Your task to perform on an android device: Clear the shopping cart on ebay.com. Image 0: 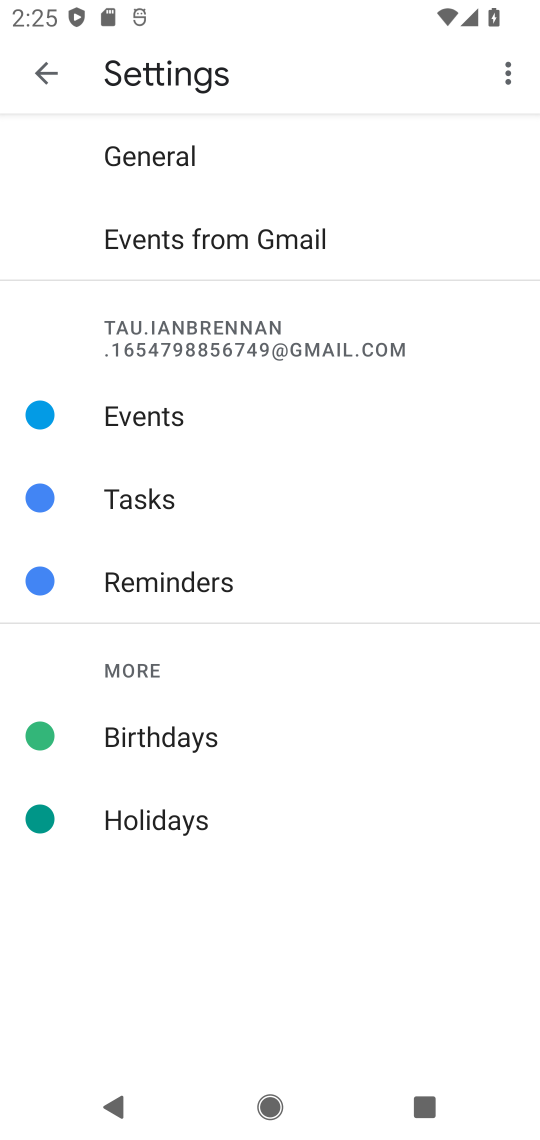
Step 0: press home button
Your task to perform on an android device: Clear the shopping cart on ebay.com. Image 1: 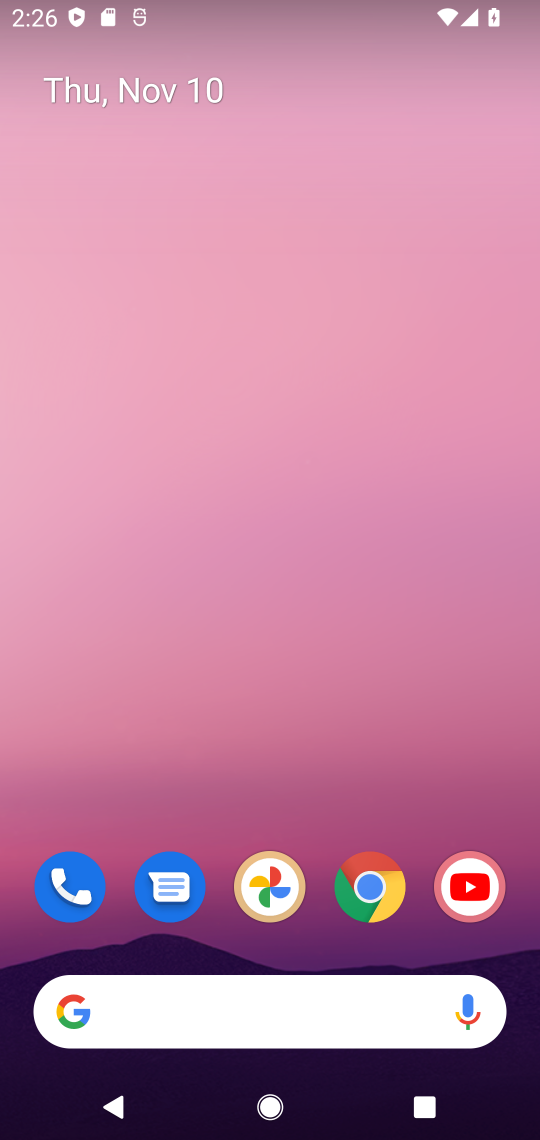
Step 1: drag from (336, 964) to (312, 65)
Your task to perform on an android device: Clear the shopping cart on ebay.com. Image 2: 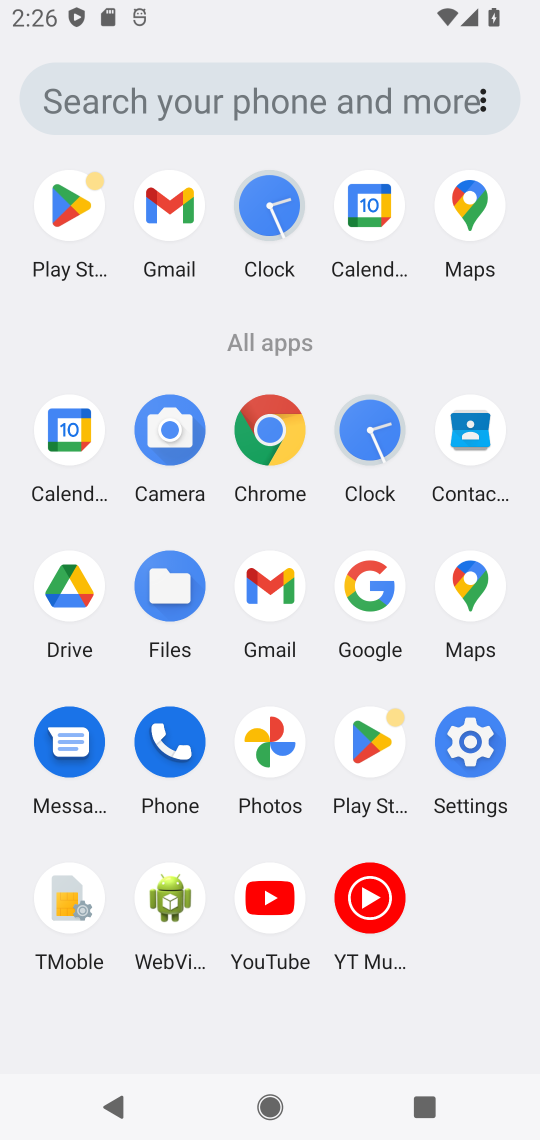
Step 2: click (266, 434)
Your task to perform on an android device: Clear the shopping cart on ebay.com. Image 3: 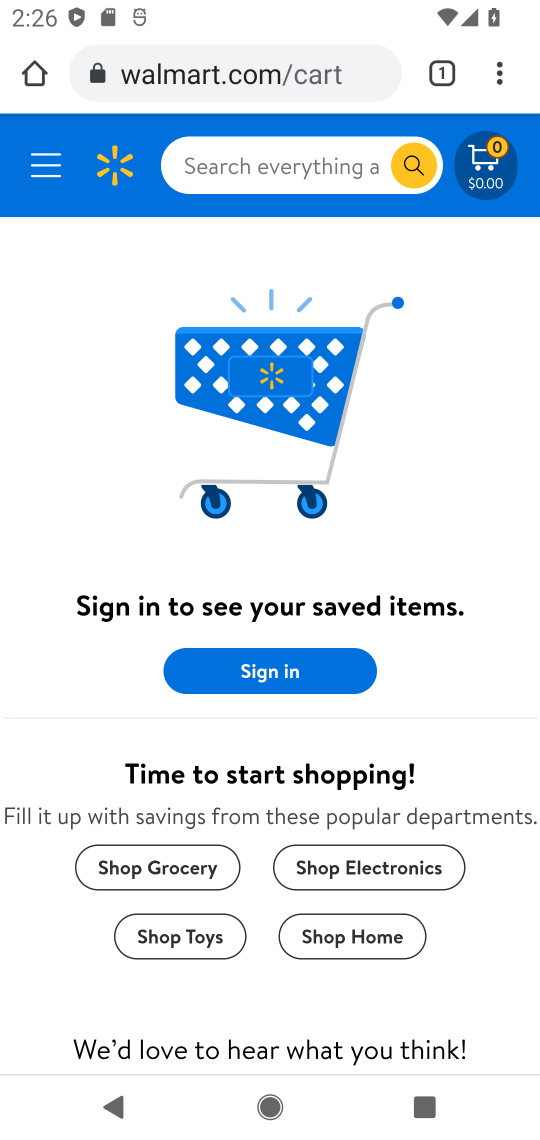
Step 3: click (264, 76)
Your task to perform on an android device: Clear the shopping cart on ebay.com. Image 4: 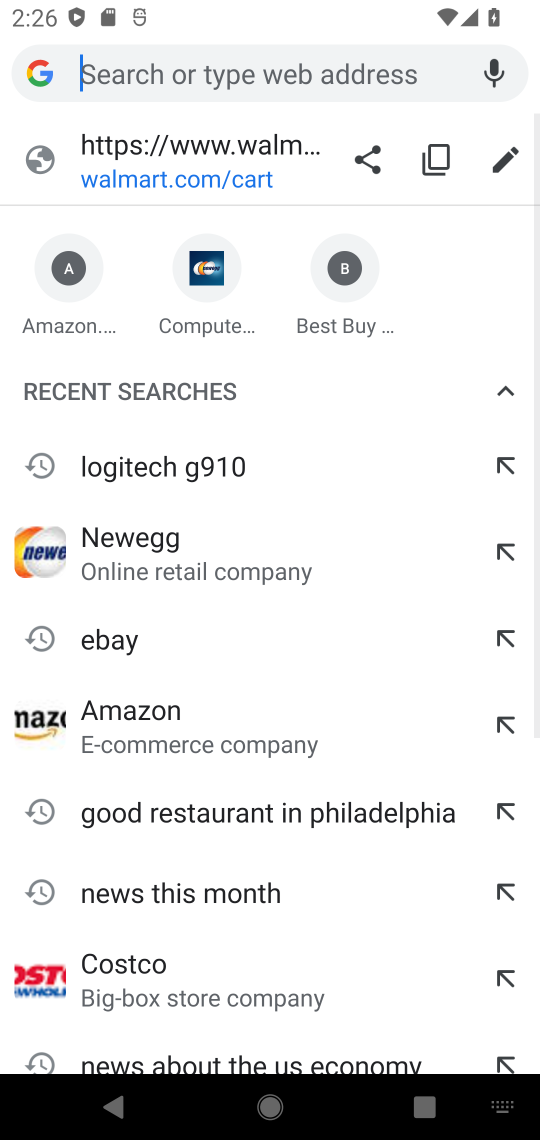
Step 4: type "ebay.com"
Your task to perform on an android device: Clear the shopping cart on ebay.com. Image 5: 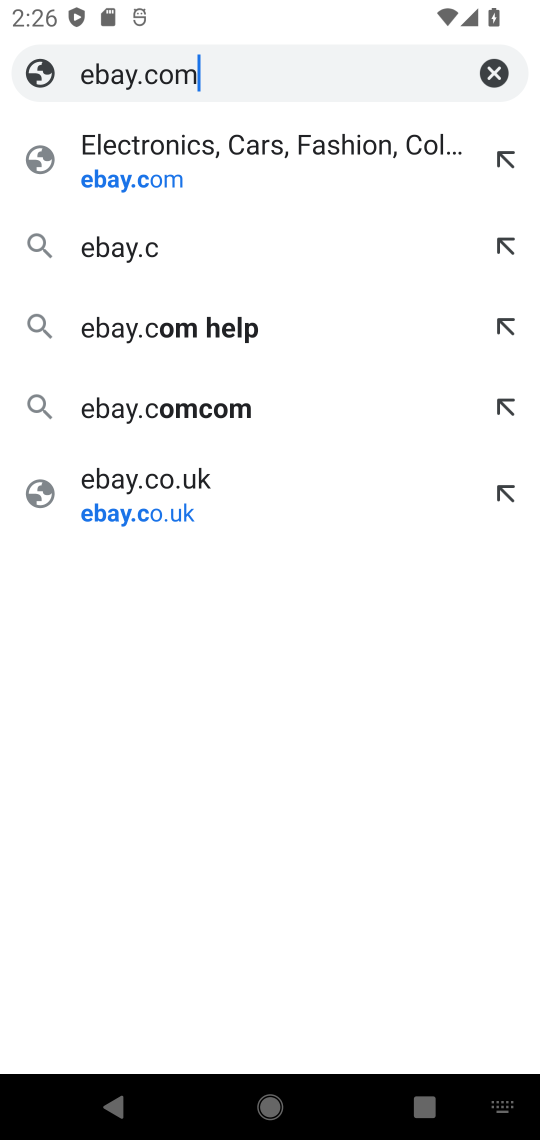
Step 5: press enter
Your task to perform on an android device: Clear the shopping cart on ebay.com. Image 6: 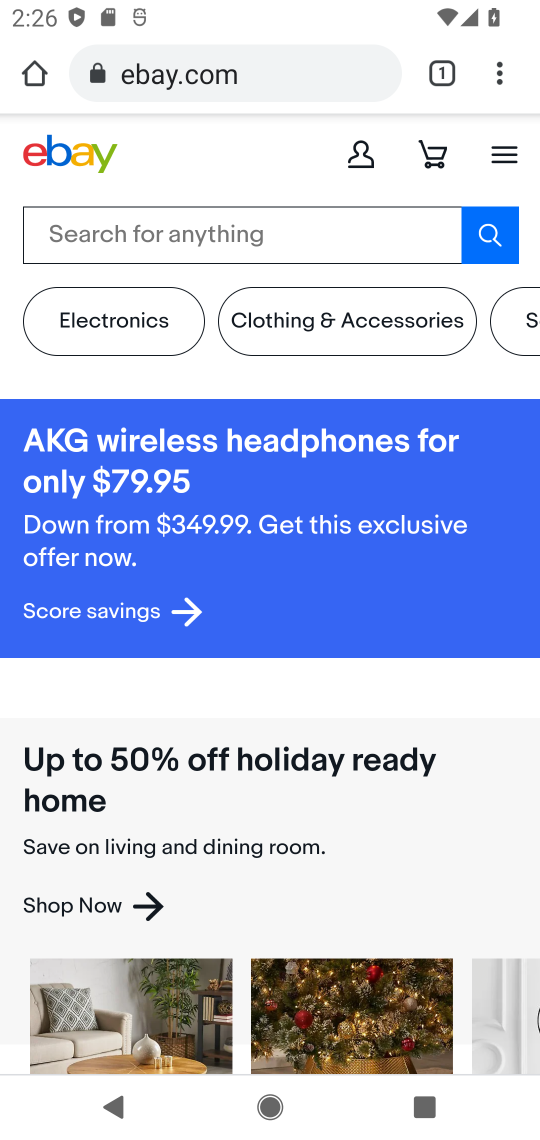
Step 6: click (445, 154)
Your task to perform on an android device: Clear the shopping cart on ebay.com. Image 7: 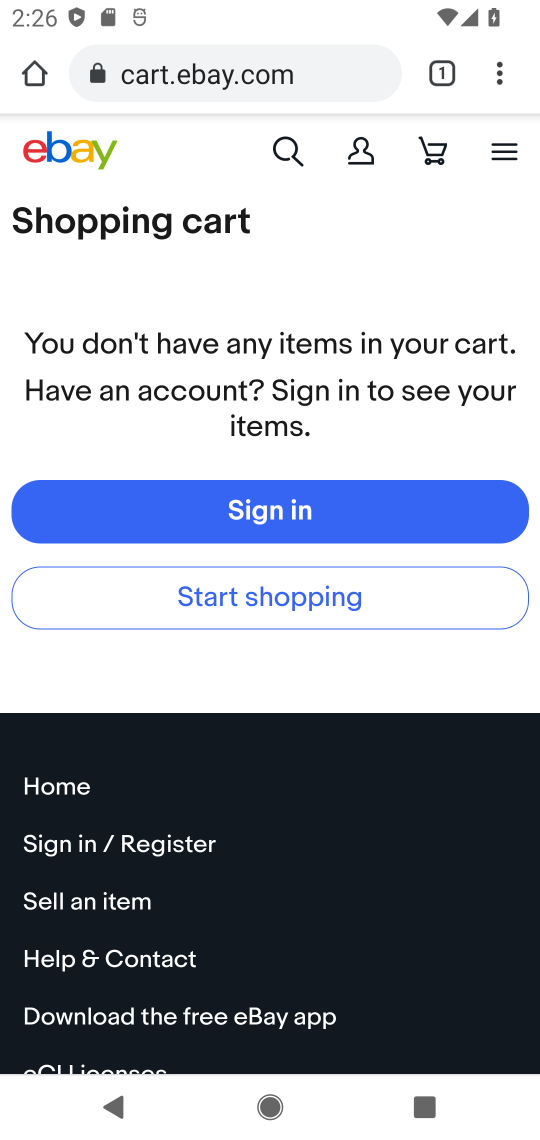
Step 7: task complete